Your task to perform on an android device: Go to display settings Image 0: 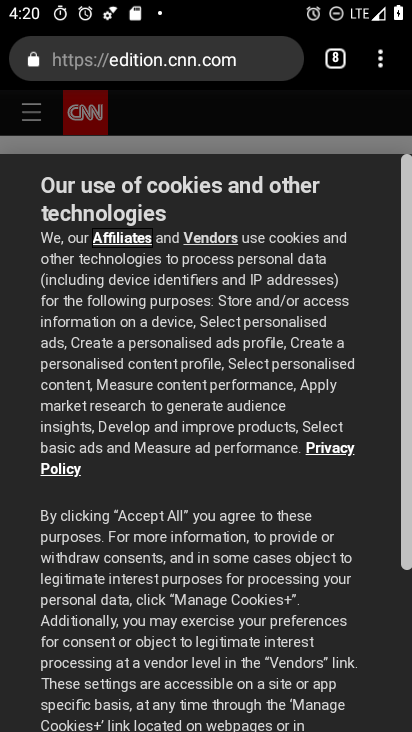
Step 0: press home button
Your task to perform on an android device: Go to display settings Image 1: 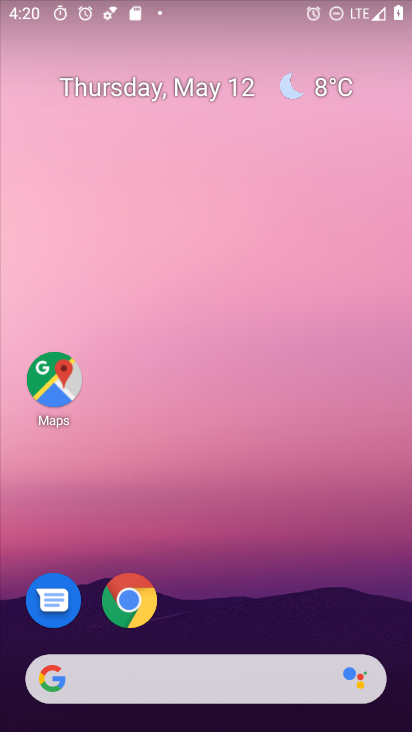
Step 1: drag from (207, 665) to (208, 140)
Your task to perform on an android device: Go to display settings Image 2: 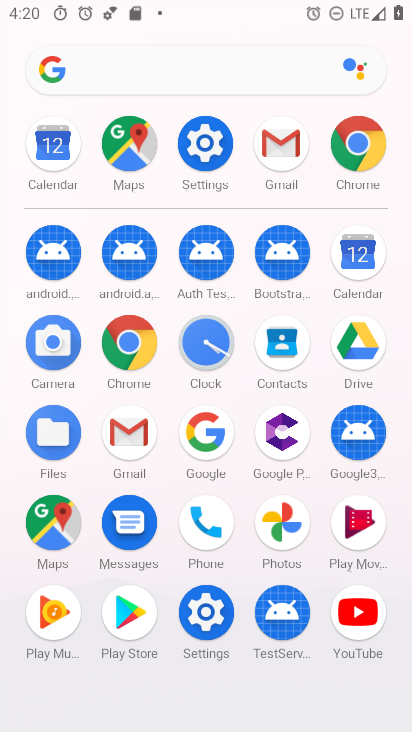
Step 2: click (207, 619)
Your task to perform on an android device: Go to display settings Image 3: 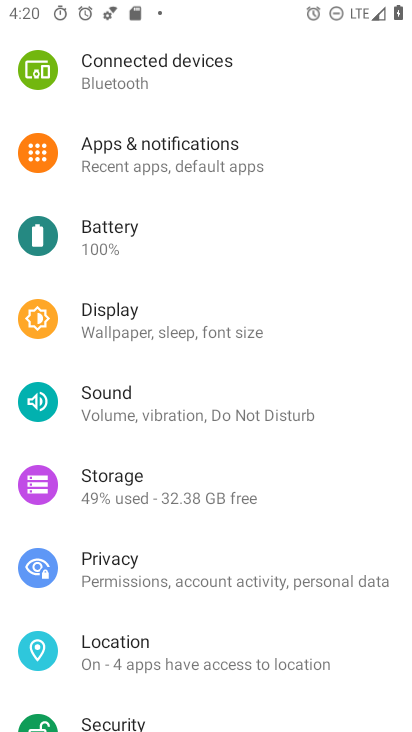
Step 3: click (116, 307)
Your task to perform on an android device: Go to display settings Image 4: 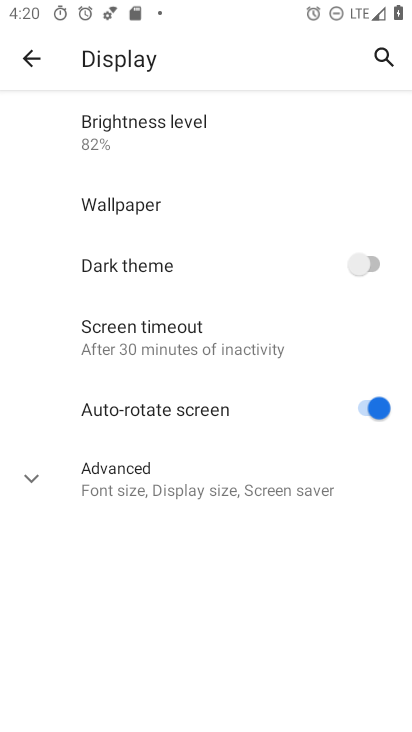
Step 4: task complete